Your task to perform on an android device: What is the news today? Image 0: 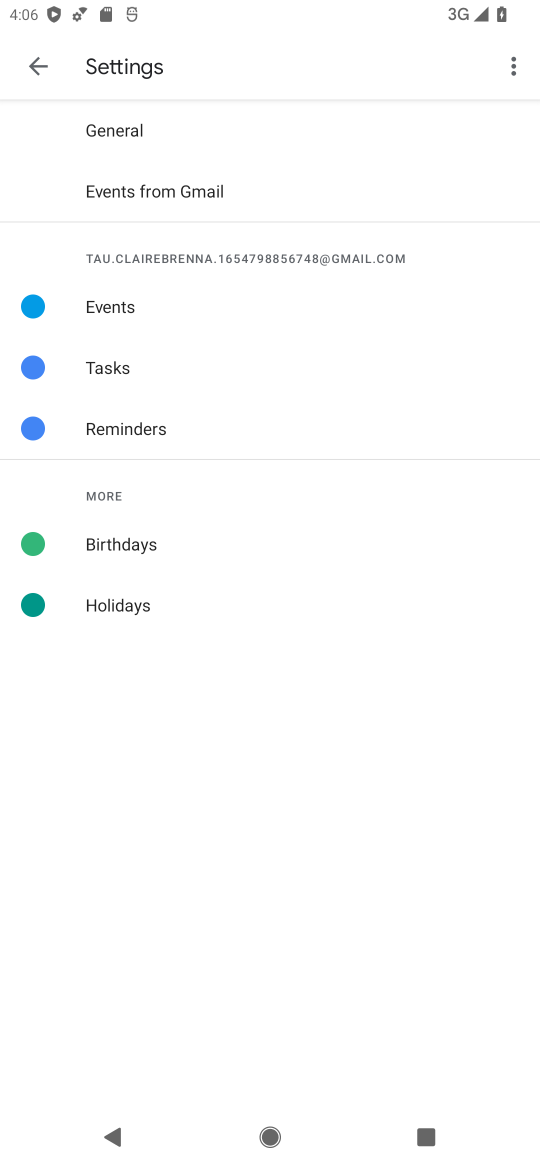
Step 0: press home button
Your task to perform on an android device: What is the news today? Image 1: 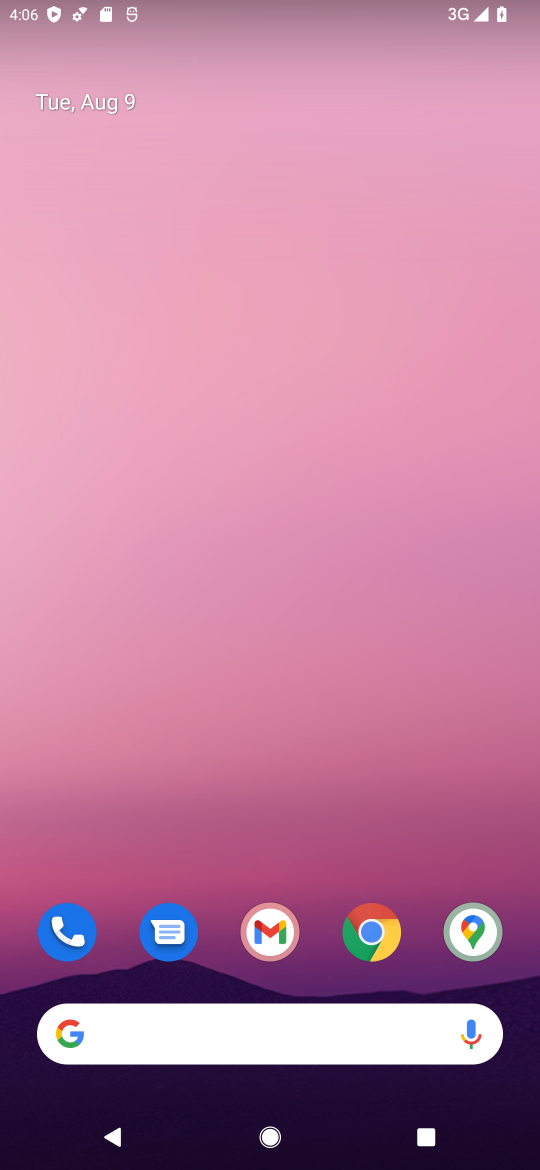
Step 1: drag from (420, 1025) to (424, 30)
Your task to perform on an android device: What is the news today? Image 2: 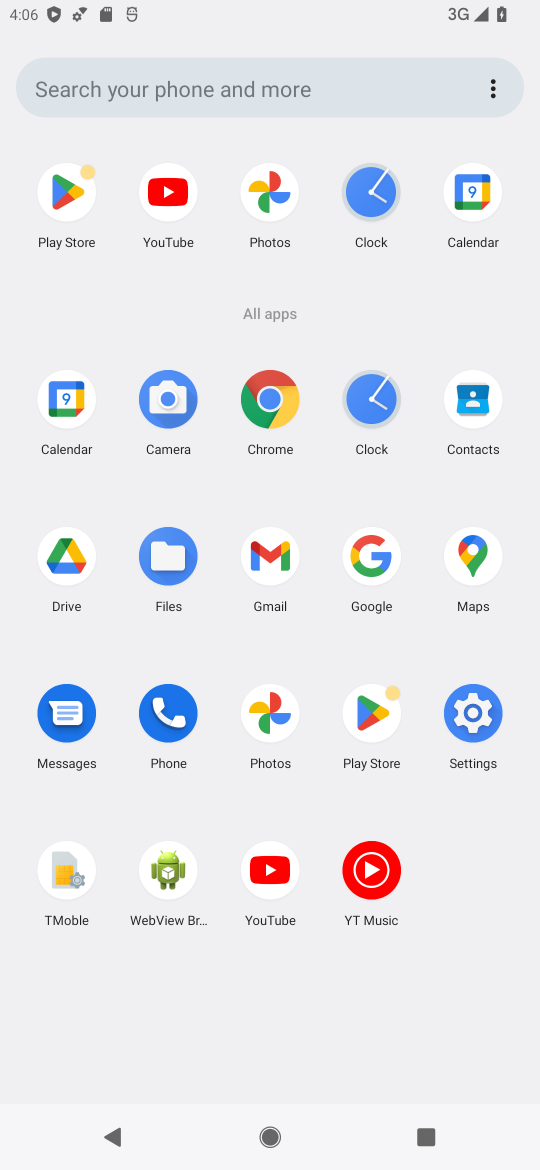
Step 2: click (279, 410)
Your task to perform on an android device: What is the news today? Image 3: 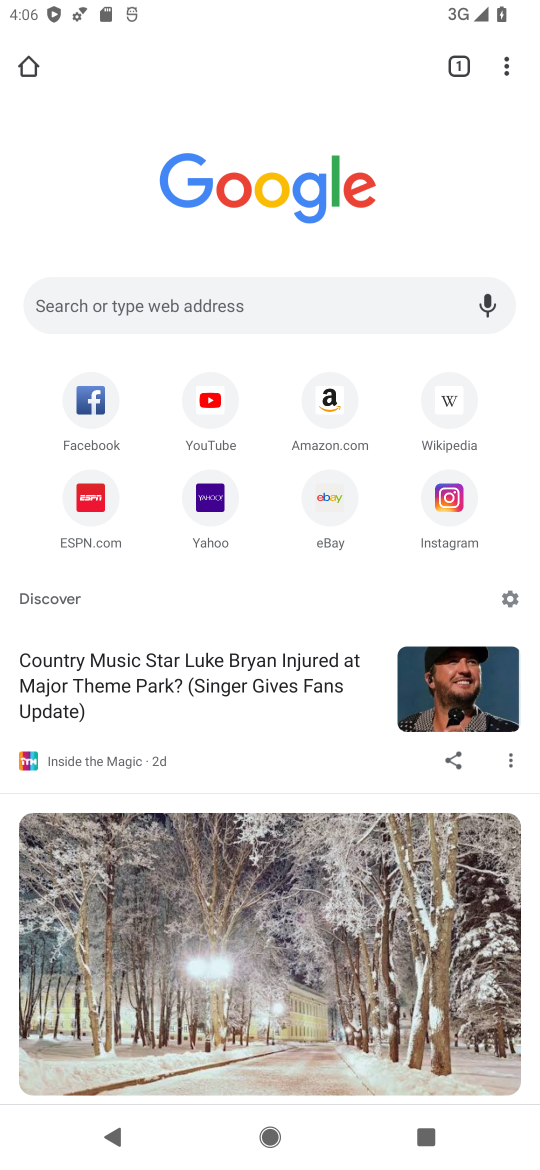
Step 3: click (271, 324)
Your task to perform on an android device: What is the news today? Image 4: 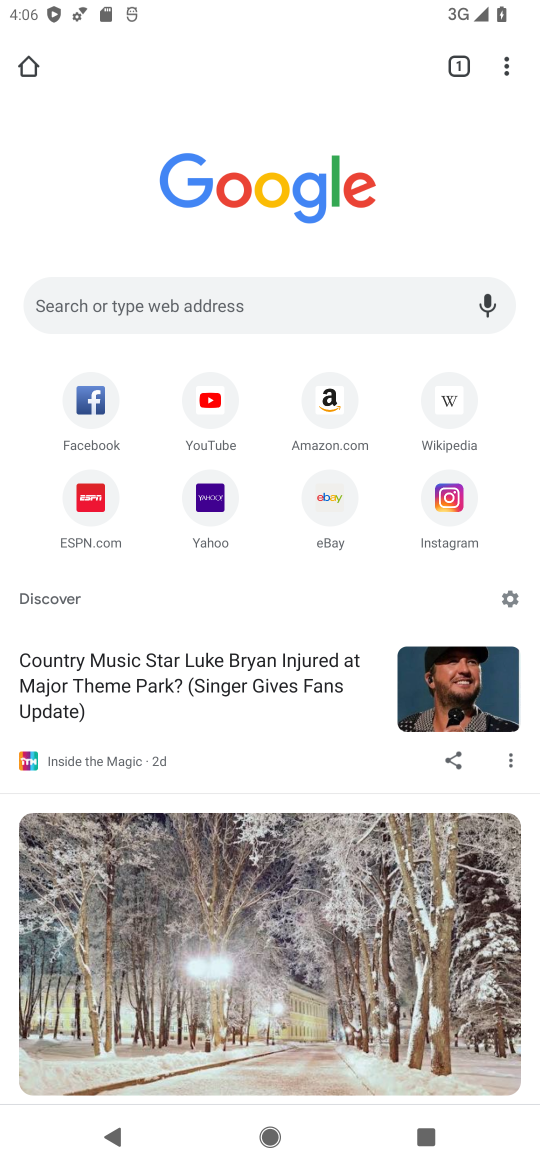
Step 4: click (271, 324)
Your task to perform on an android device: What is the news today? Image 5: 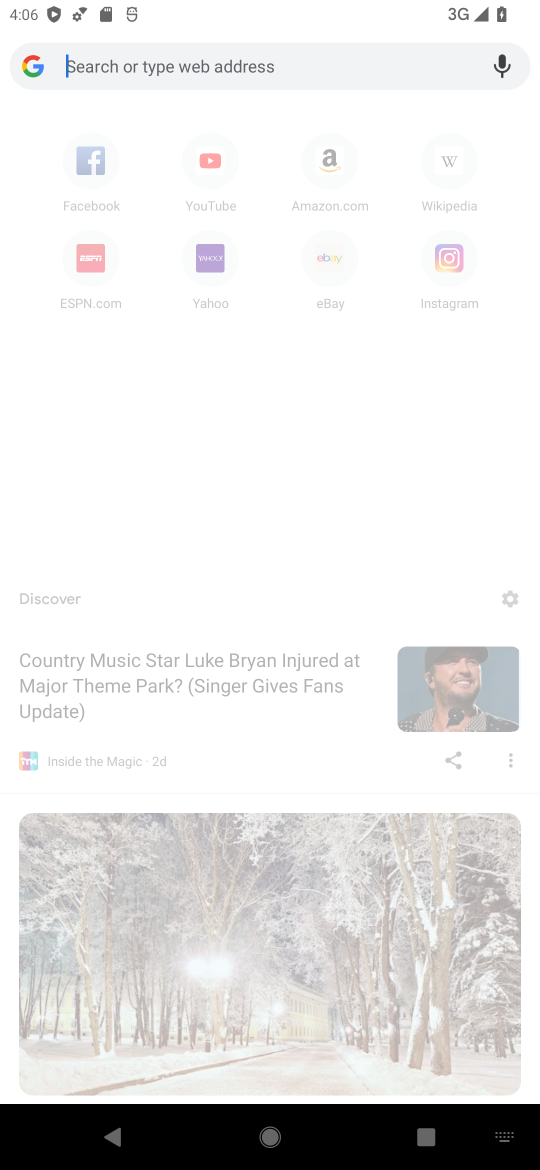
Step 5: press home button
Your task to perform on an android device: What is the news today? Image 6: 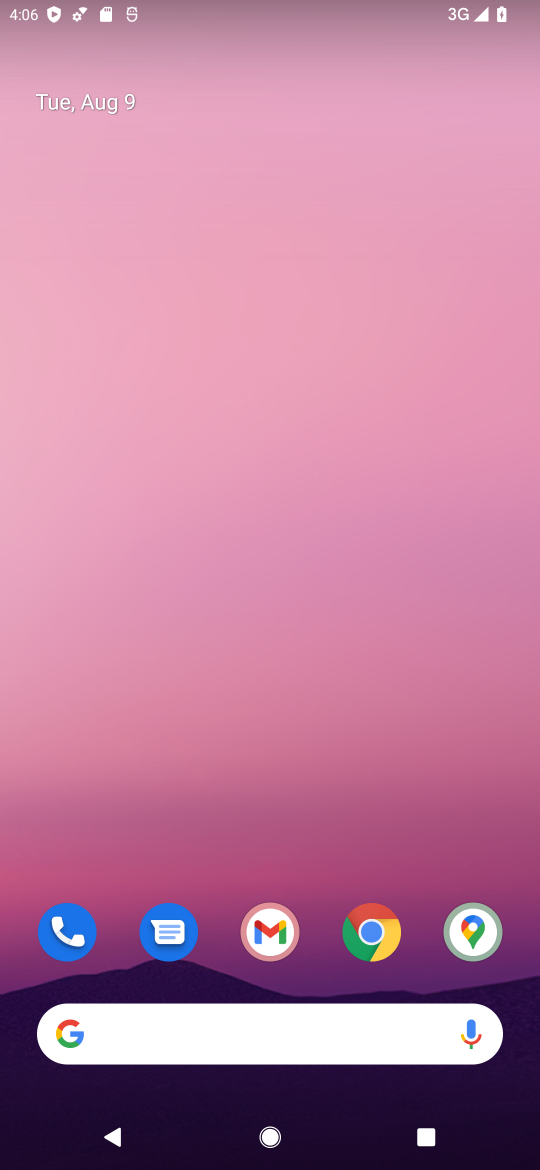
Step 6: drag from (336, 1046) to (301, 158)
Your task to perform on an android device: What is the news today? Image 7: 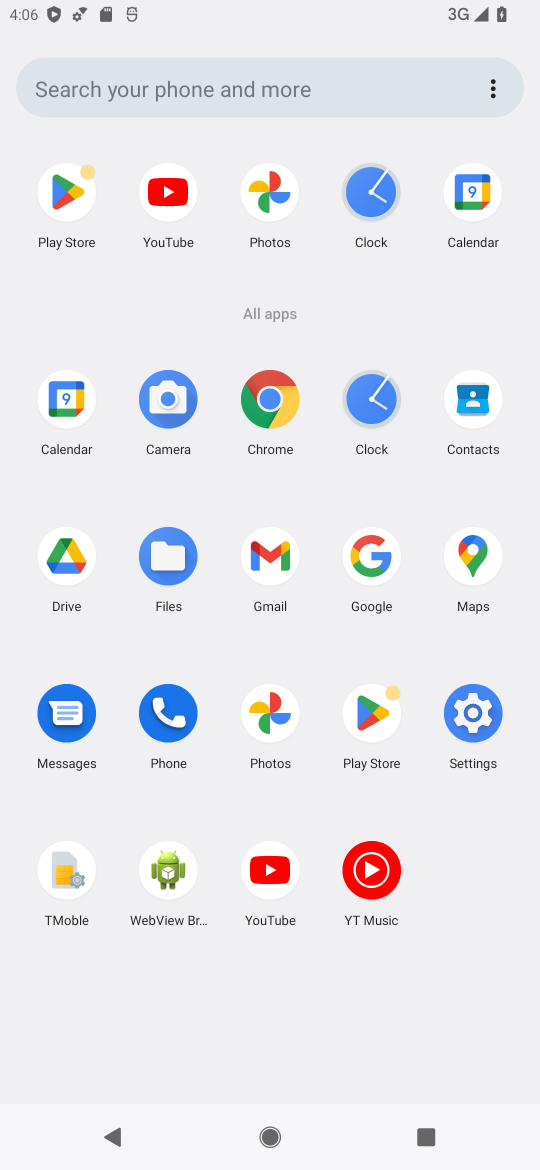
Step 7: click (375, 549)
Your task to perform on an android device: What is the news today? Image 8: 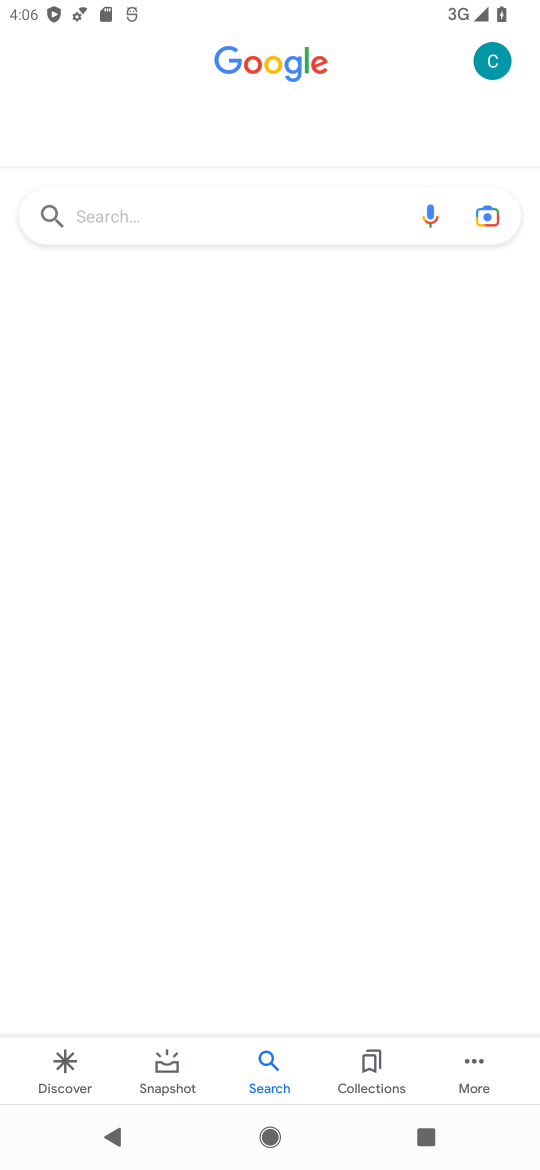
Step 8: click (159, 203)
Your task to perform on an android device: What is the news today? Image 9: 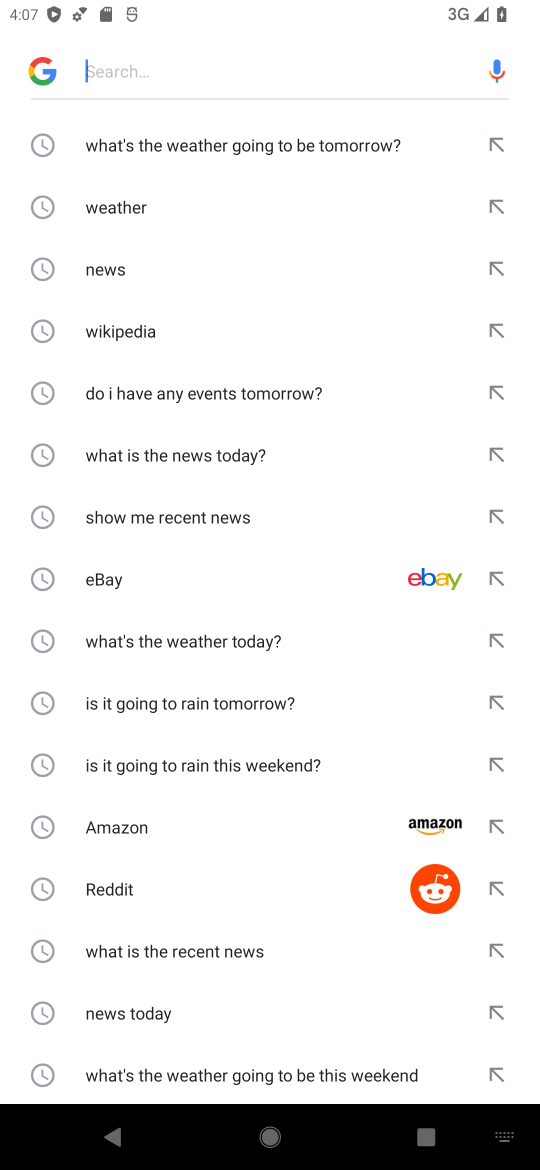
Step 9: click (214, 459)
Your task to perform on an android device: What is the news today? Image 10: 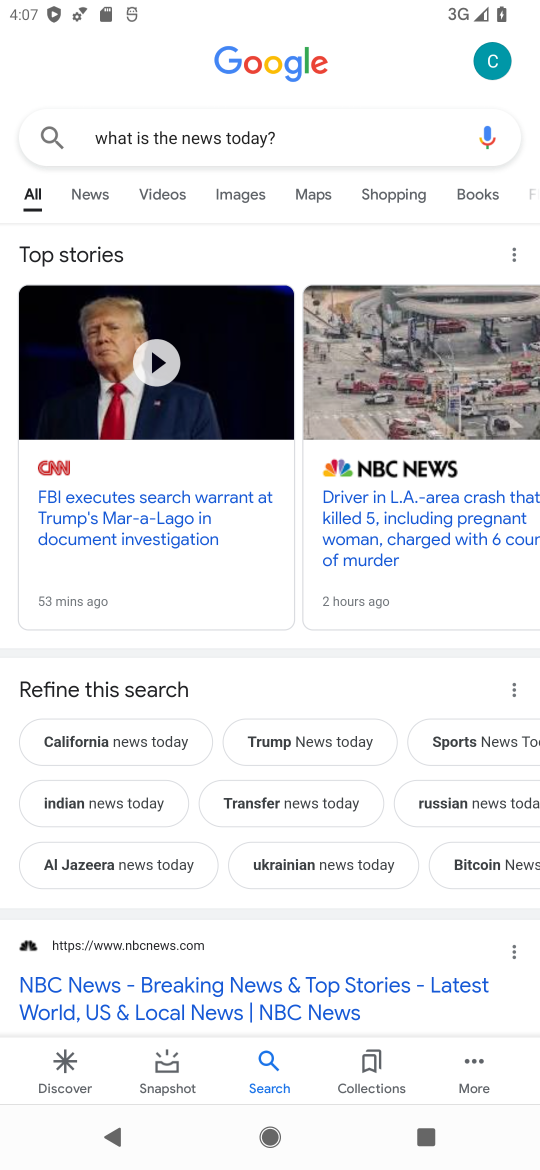
Step 10: task complete